Your task to perform on an android device: install app "Pandora - Music & Podcasts" Image 0: 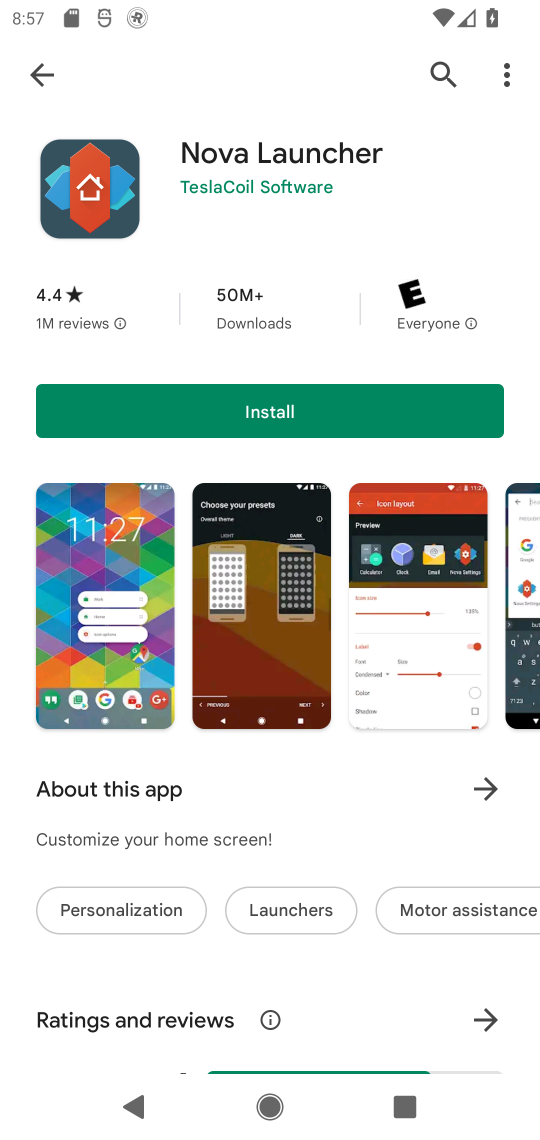
Step 0: press home button
Your task to perform on an android device: install app "Pandora - Music & Podcasts" Image 1: 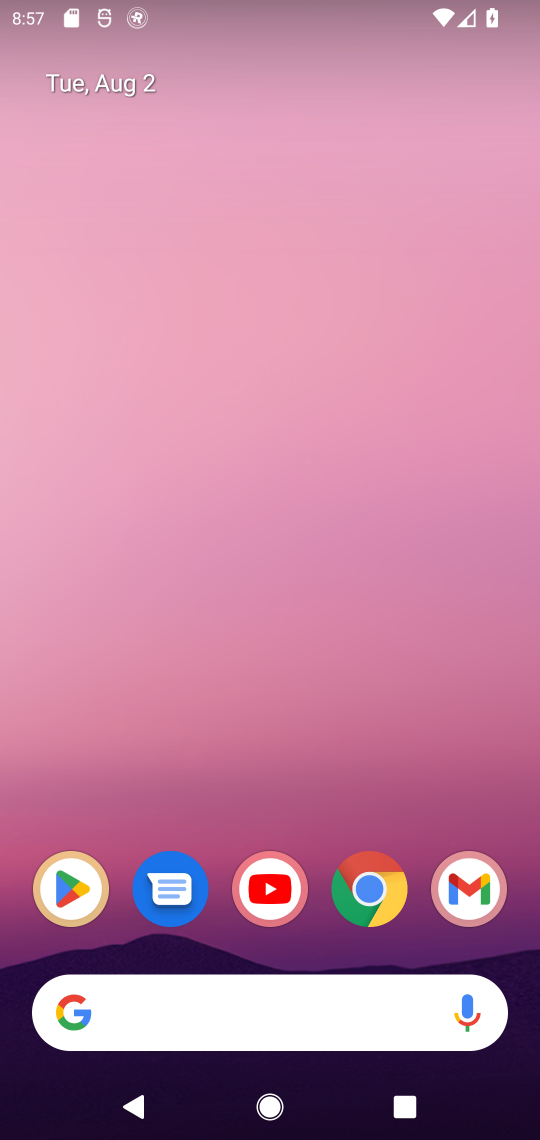
Step 1: click (63, 899)
Your task to perform on an android device: install app "Pandora - Music & Podcasts" Image 2: 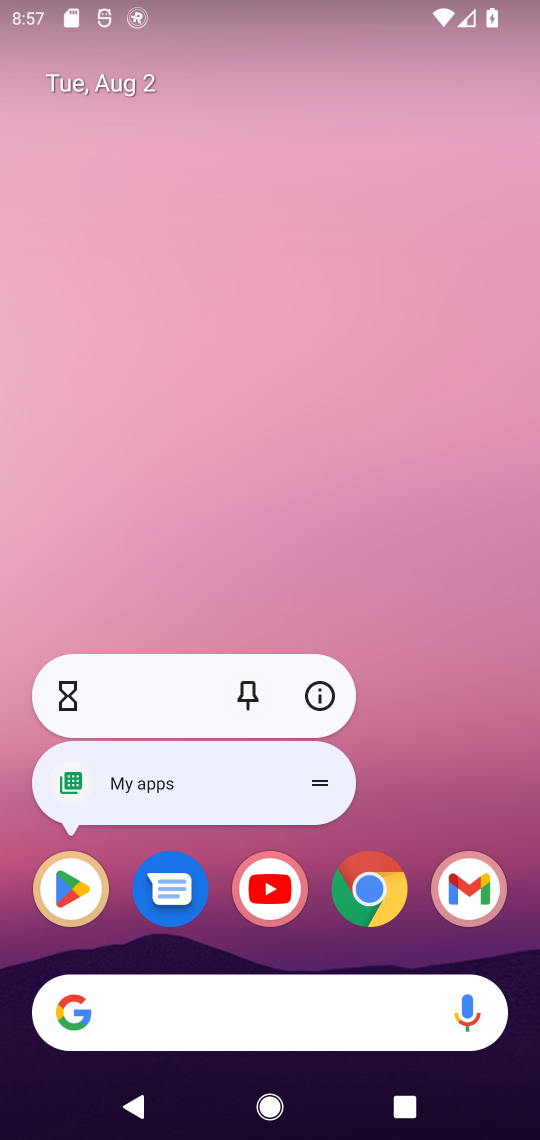
Step 2: click (86, 884)
Your task to perform on an android device: install app "Pandora - Music & Podcasts" Image 3: 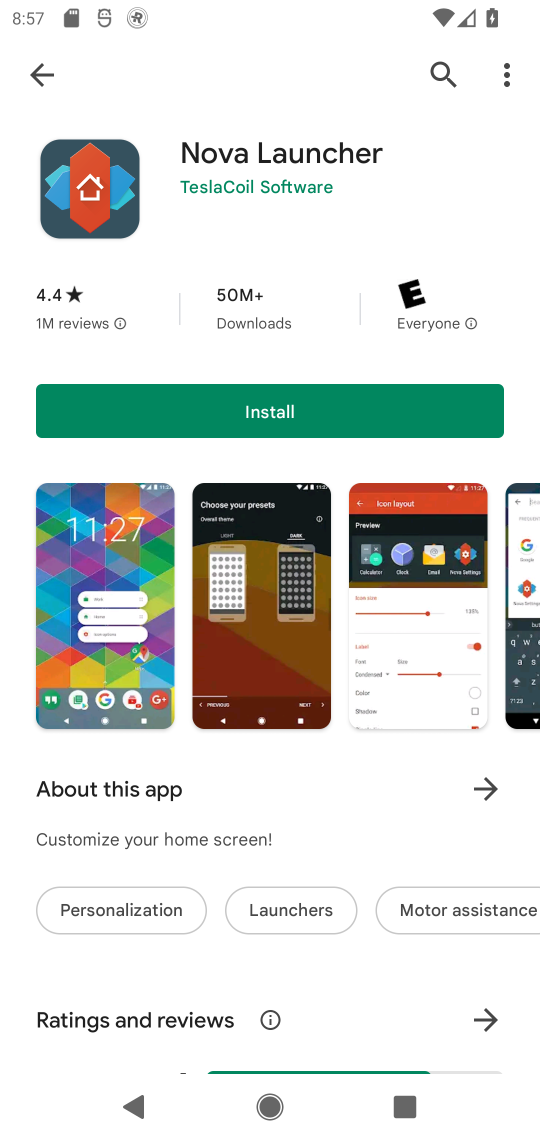
Step 3: click (432, 67)
Your task to perform on an android device: install app "Pandora - Music & Podcasts" Image 4: 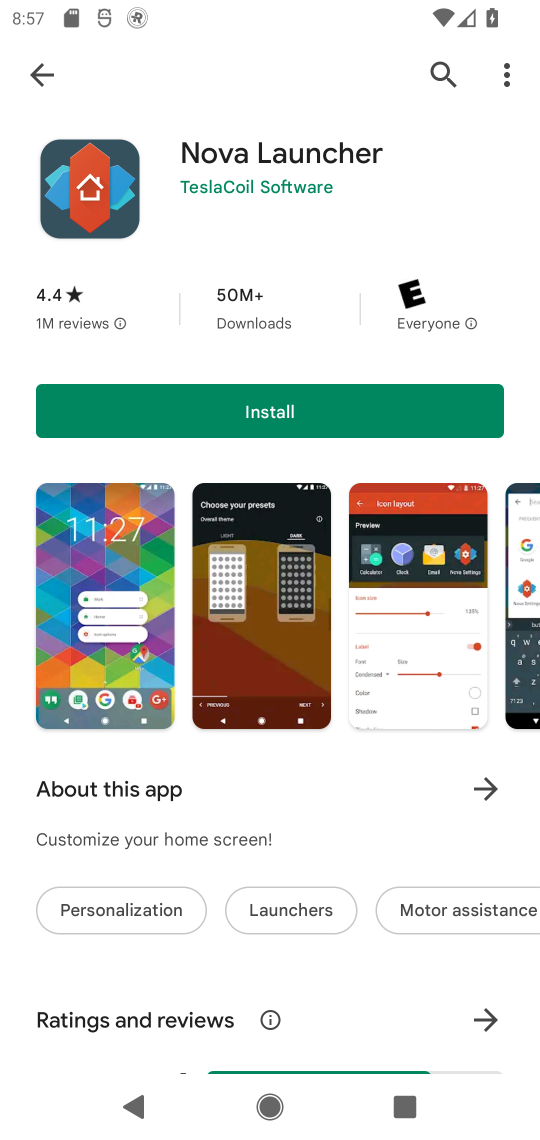
Step 4: click (447, 75)
Your task to perform on an android device: install app "Pandora - Music & Podcasts" Image 5: 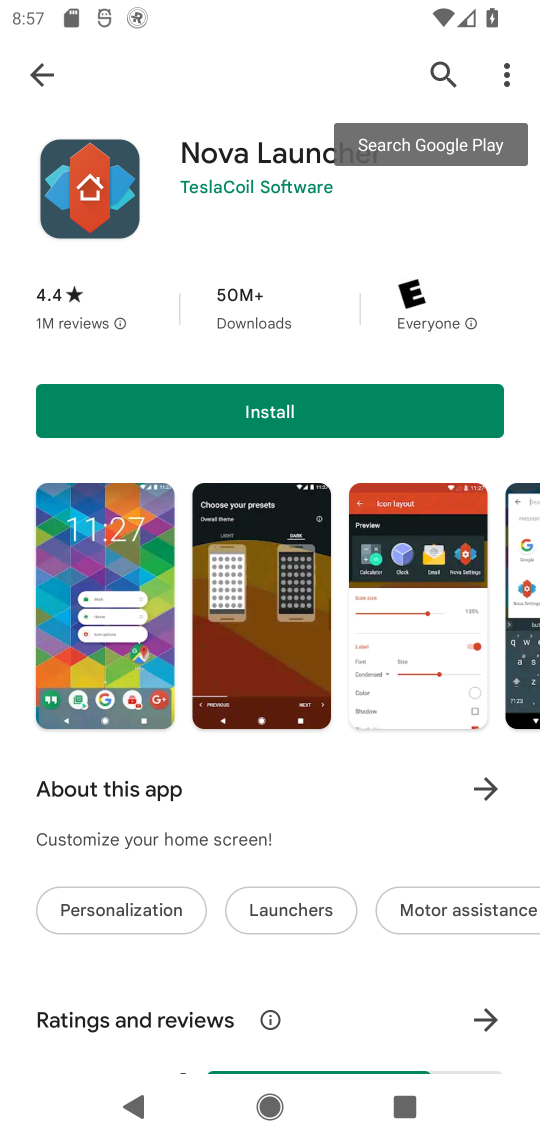
Step 5: click (436, 62)
Your task to perform on an android device: install app "Pandora - Music & Podcasts" Image 6: 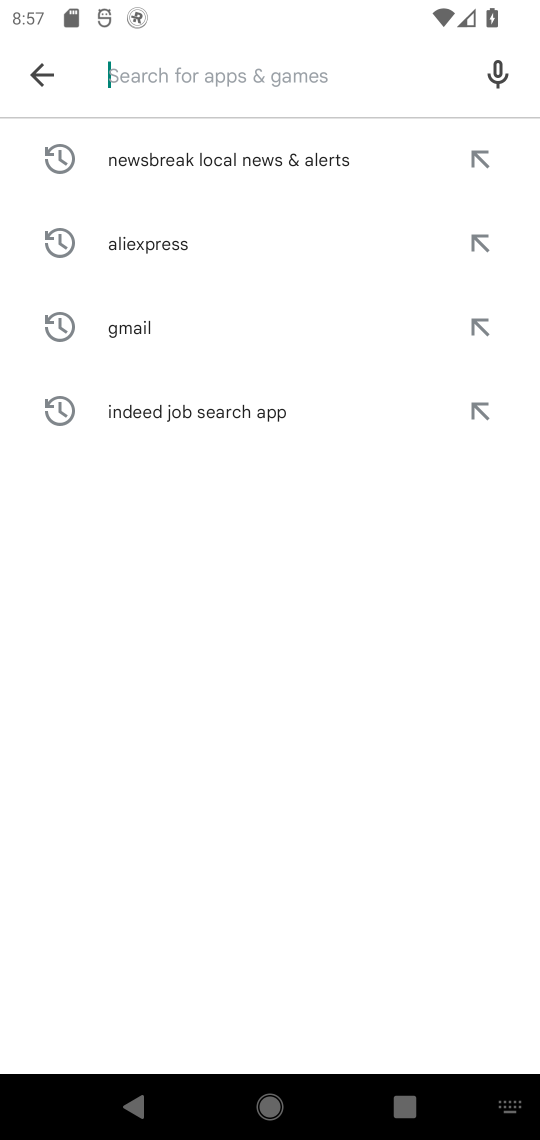
Step 6: click (37, 68)
Your task to perform on an android device: install app "Pandora - Music & Podcasts" Image 7: 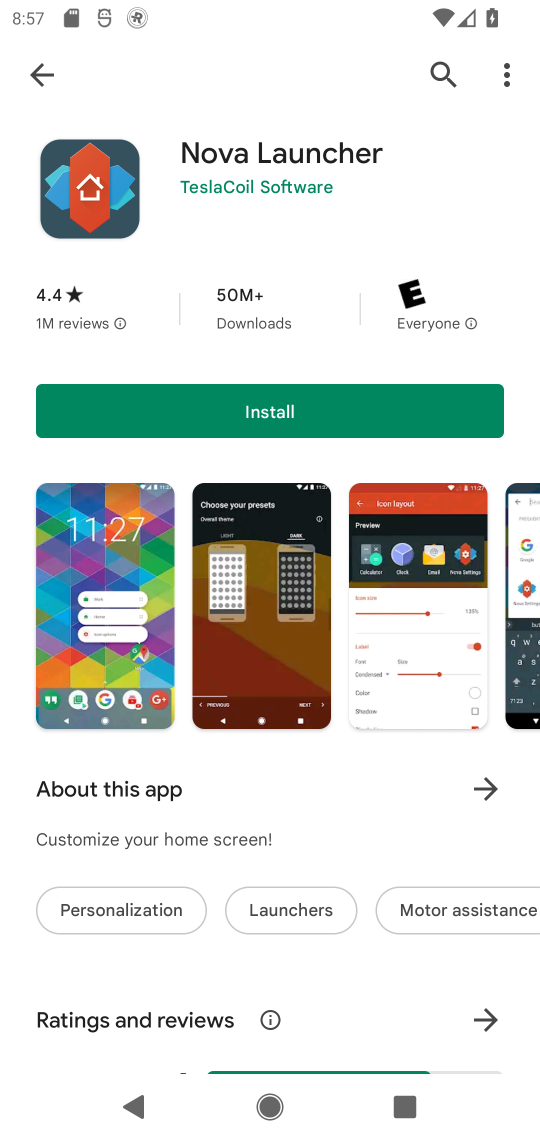
Step 7: click (35, 74)
Your task to perform on an android device: install app "Pandora - Music & Podcasts" Image 8: 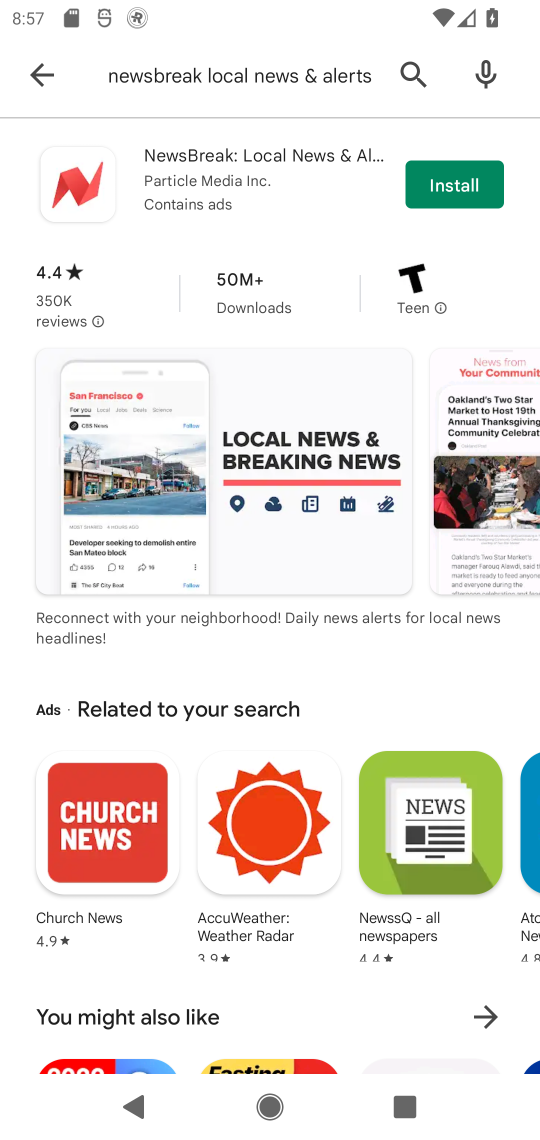
Step 8: click (412, 73)
Your task to perform on an android device: install app "Pandora - Music & Podcasts" Image 9: 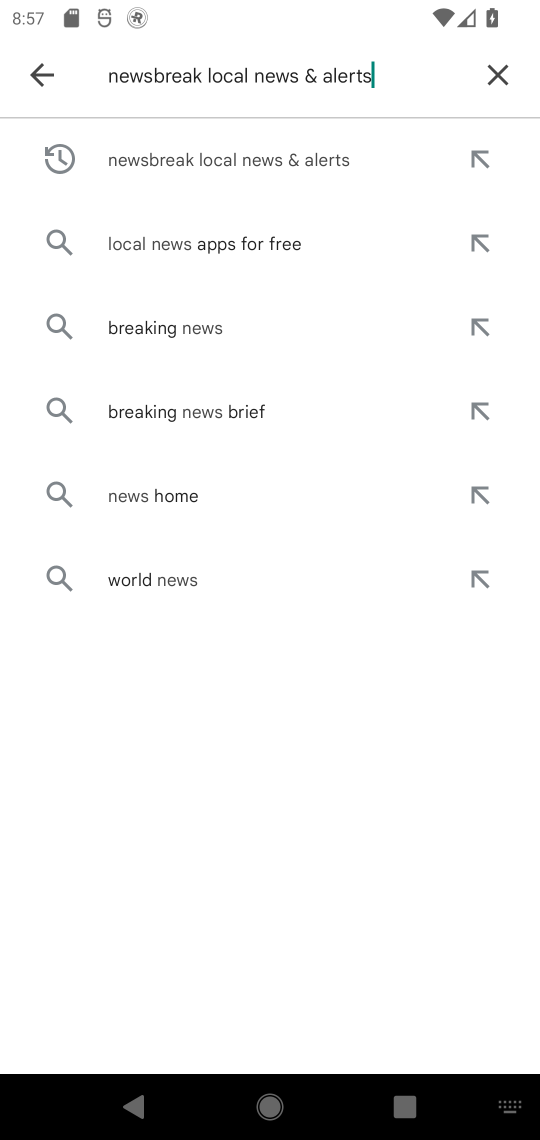
Step 9: click (493, 71)
Your task to perform on an android device: install app "Pandora - Music & Podcasts" Image 10: 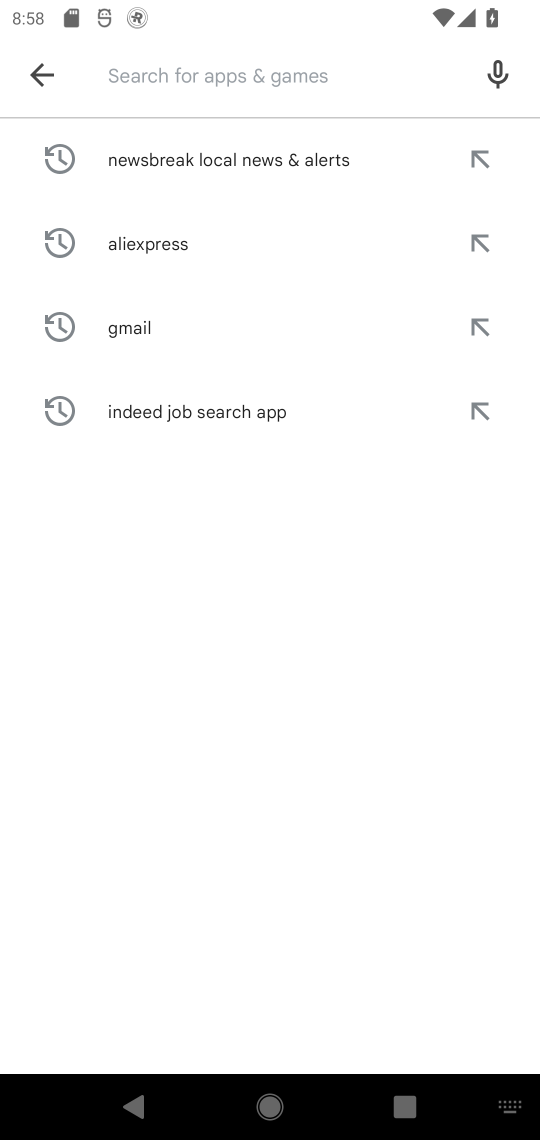
Step 10: type "Pandora - Music & Podcasts"
Your task to perform on an android device: install app "Pandora - Music & Podcasts" Image 11: 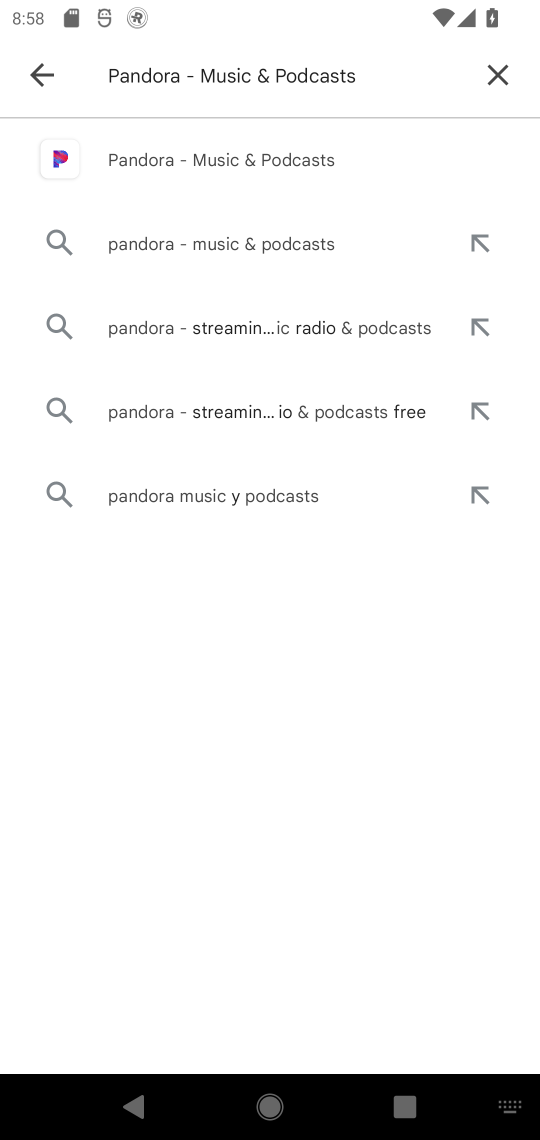
Step 11: click (233, 156)
Your task to perform on an android device: install app "Pandora - Music & Podcasts" Image 12: 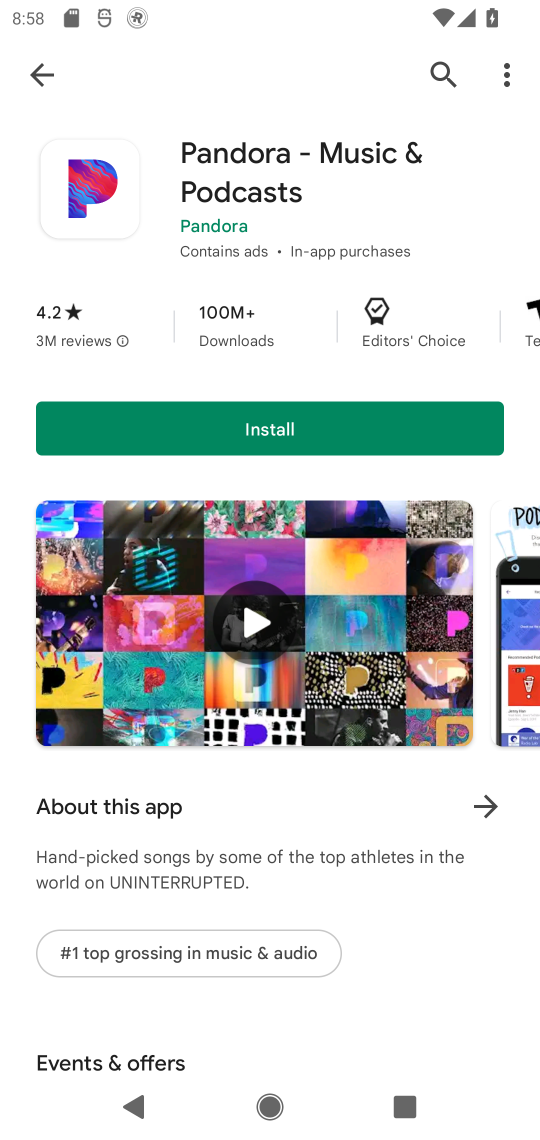
Step 12: click (291, 424)
Your task to perform on an android device: install app "Pandora - Music & Podcasts" Image 13: 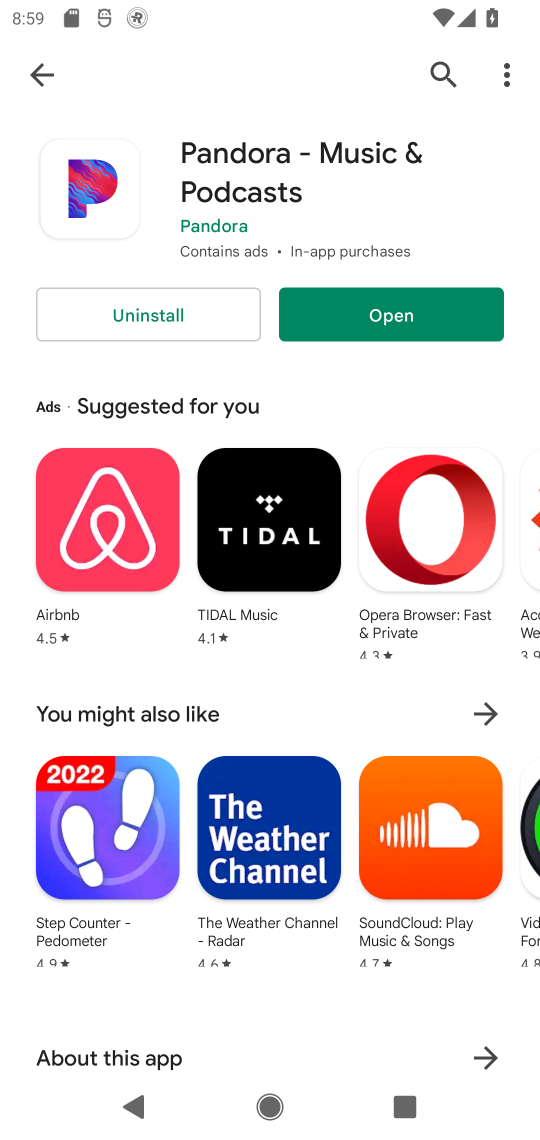
Step 13: task complete